Your task to perform on an android device: Show me the alarms in the clock app Image 0: 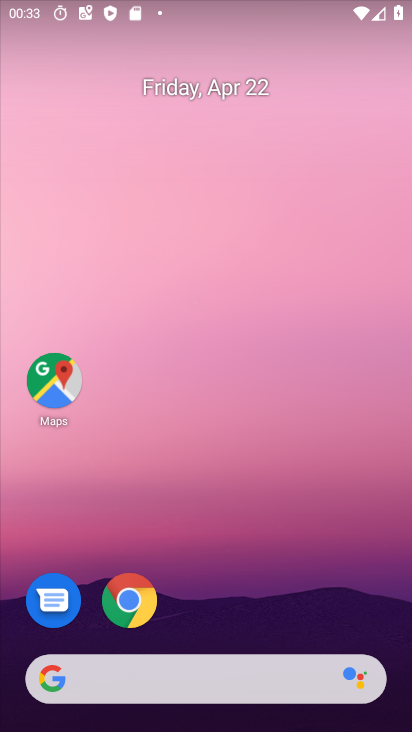
Step 0: drag from (209, 623) to (249, 74)
Your task to perform on an android device: Show me the alarms in the clock app Image 1: 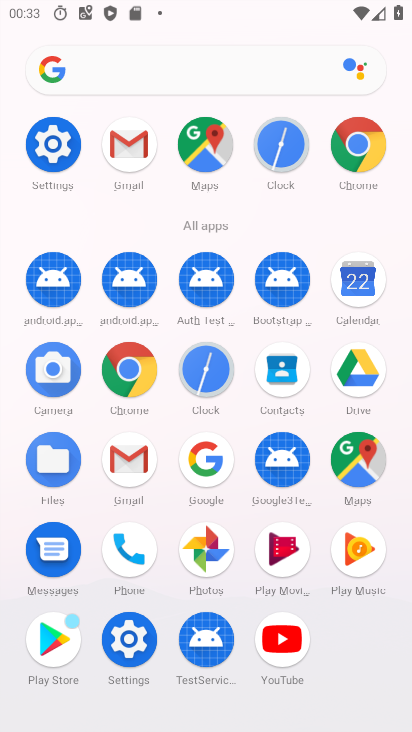
Step 1: click (281, 149)
Your task to perform on an android device: Show me the alarms in the clock app Image 2: 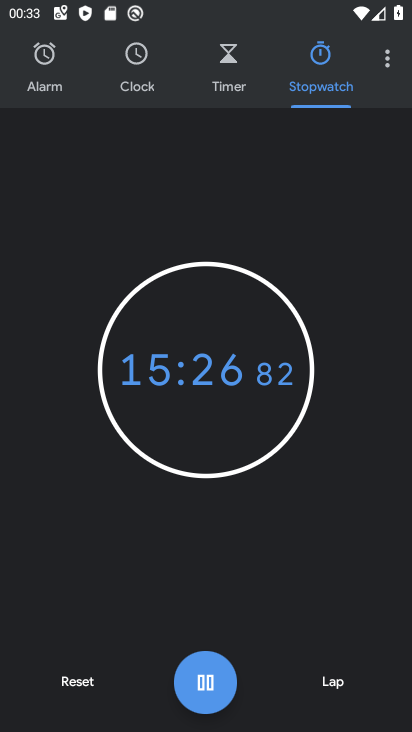
Step 2: click (54, 72)
Your task to perform on an android device: Show me the alarms in the clock app Image 3: 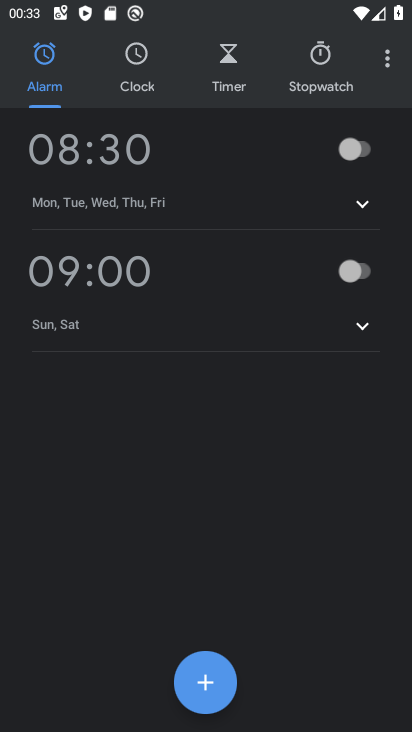
Step 3: task complete